Your task to perform on an android device: turn on priority inbox in the gmail app Image 0: 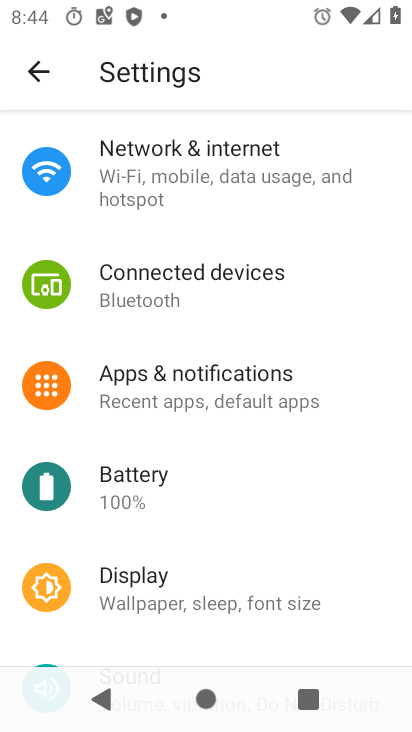
Step 0: press home button
Your task to perform on an android device: turn on priority inbox in the gmail app Image 1: 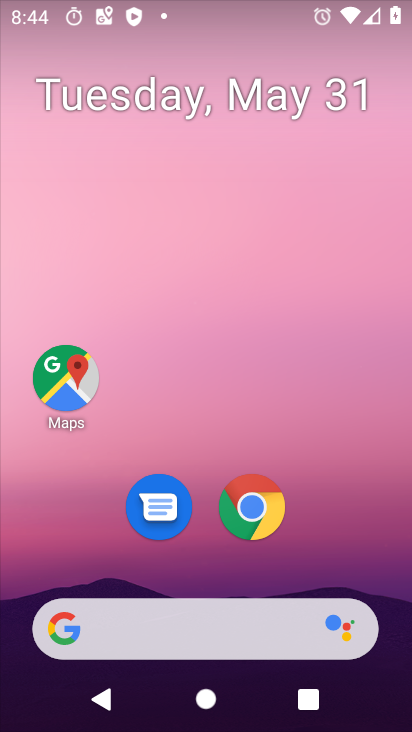
Step 1: drag from (338, 590) to (320, 13)
Your task to perform on an android device: turn on priority inbox in the gmail app Image 2: 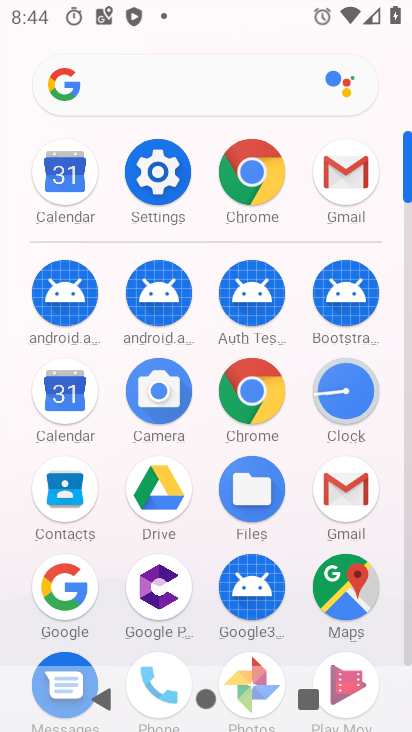
Step 2: click (339, 188)
Your task to perform on an android device: turn on priority inbox in the gmail app Image 3: 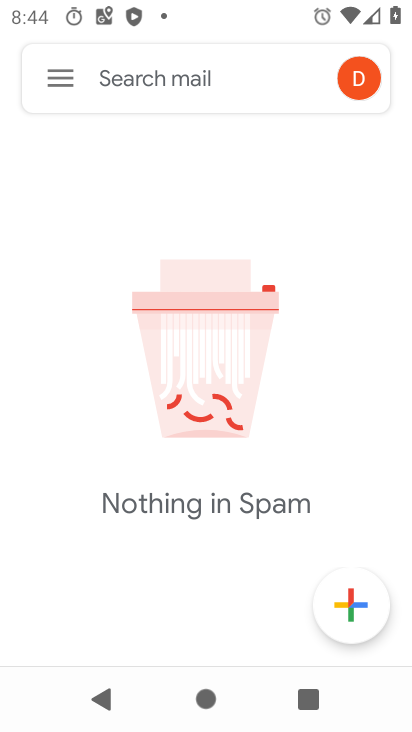
Step 3: click (53, 84)
Your task to perform on an android device: turn on priority inbox in the gmail app Image 4: 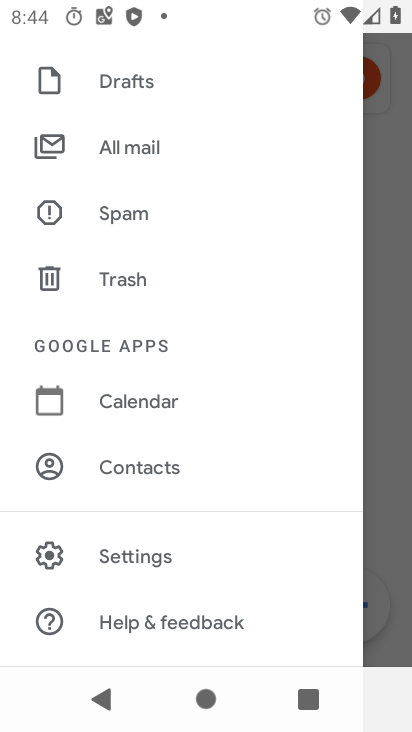
Step 4: click (146, 567)
Your task to perform on an android device: turn on priority inbox in the gmail app Image 5: 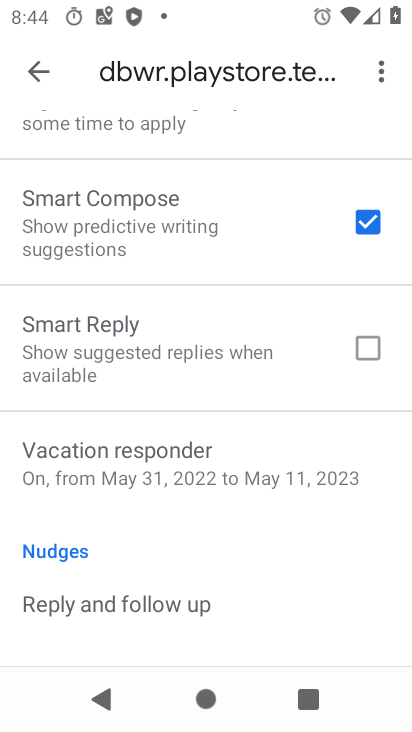
Step 5: drag from (147, 293) to (164, 687)
Your task to perform on an android device: turn on priority inbox in the gmail app Image 6: 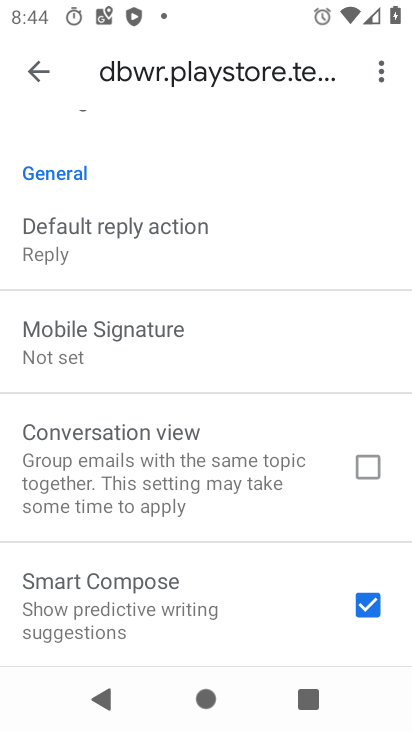
Step 6: drag from (99, 223) to (139, 642)
Your task to perform on an android device: turn on priority inbox in the gmail app Image 7: 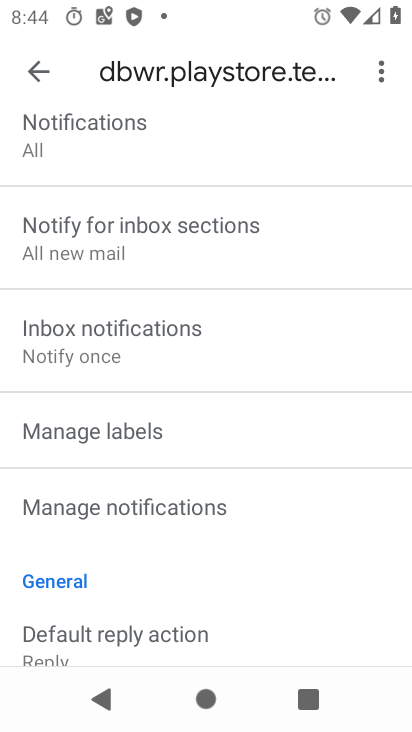
Step 7: drag from (140, 242) to (165, 678)
Your task to perform on an android device: turn on priority inbox in the gmail app Image 8: 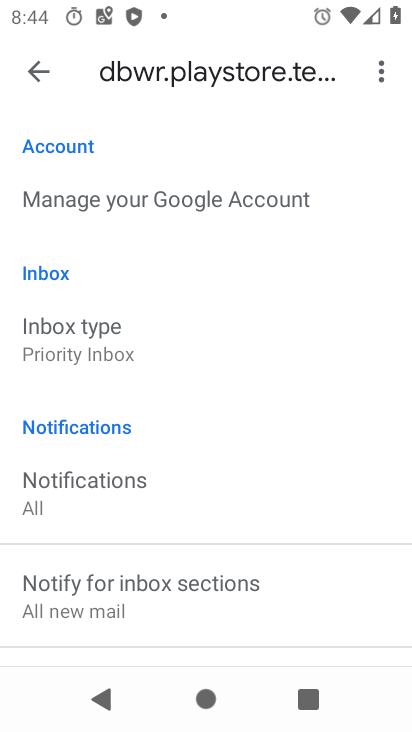
Step 8: click (87, 348)
Your task to perform on an android device: turn on priority inbox in the gmail app Image 9: 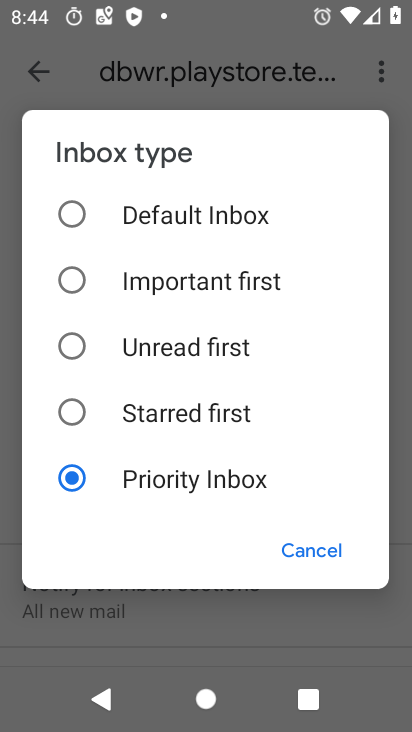
Step 9: task complete